Your task to perform on an android device: Open the web browser Image 0: 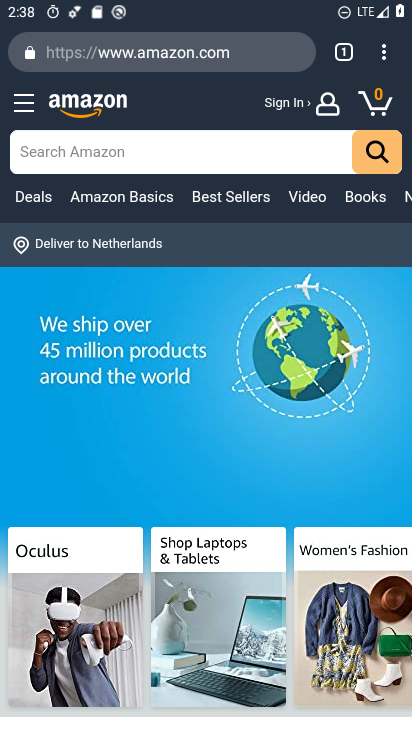
Step 0: drag from (238, 526) to (197, 128)
Your task to perform on an android device: Open the web browser Image 1: 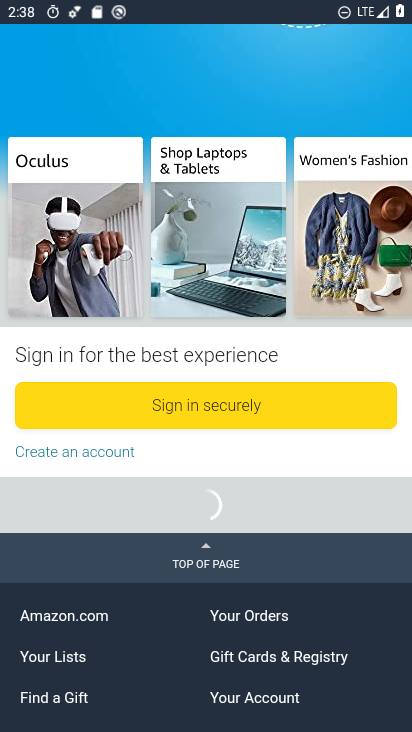
Step 1: task complete